Your task to perform on an android device: Search for the best-rated coffee table on Crate & Barrel Image 0: 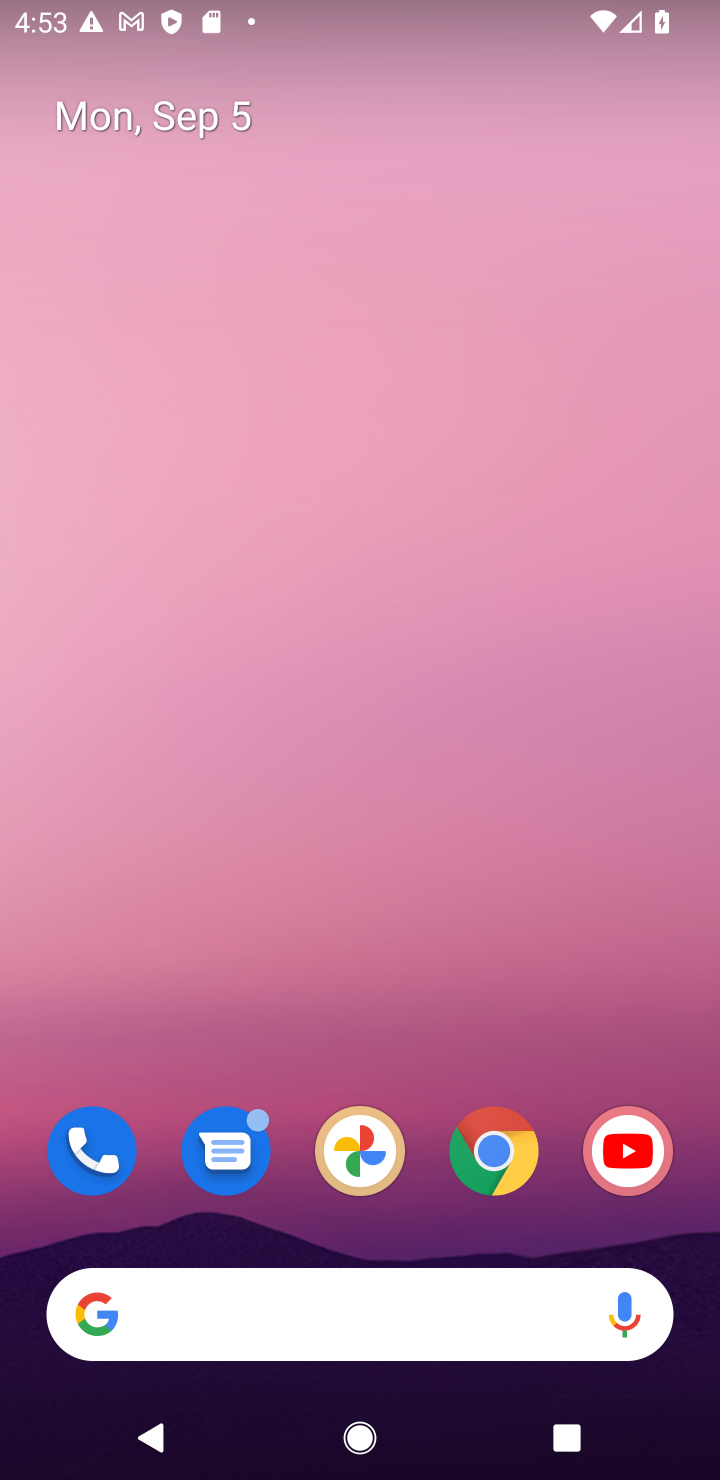
Step 0: drag from (396, 1277) to (460, 278)
Your task to perform on an android device: Search for the best-rated coffee table on Crate & Barrel Image 1: 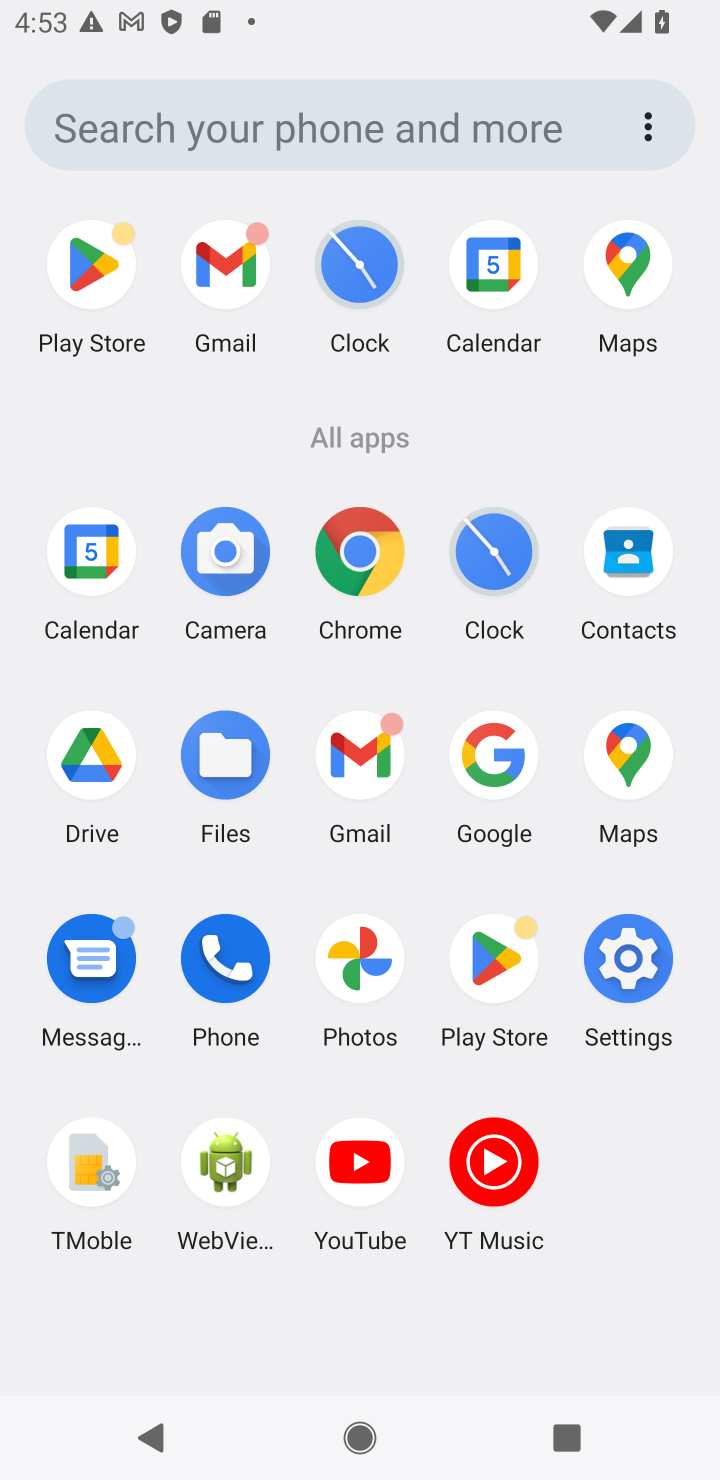
Step 1: click (352, 579)
Your task to perform on an android device: Search for the best-rated coffee table on Crate & Barrel Image 2: 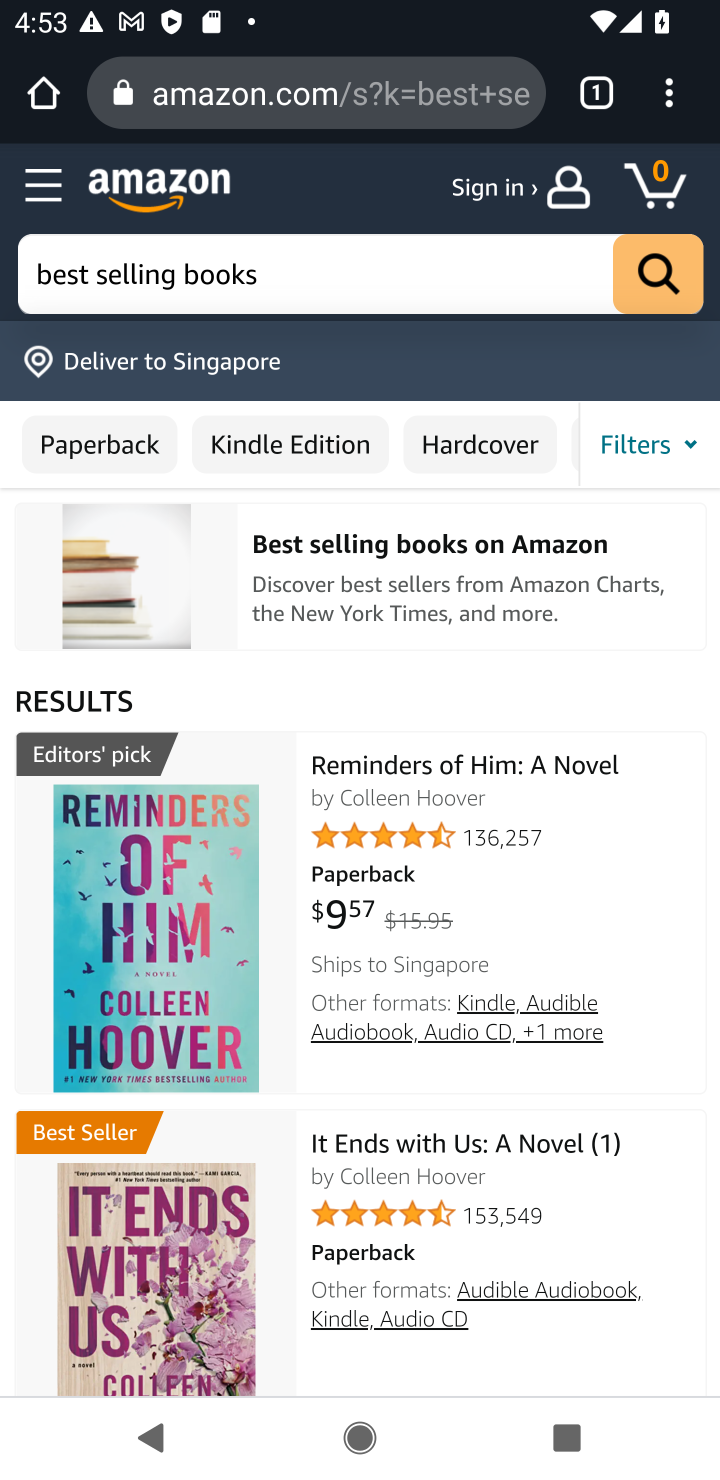
Step 2: click (475, 109)
Your task to perform on an android device: Search for the best-rated coffee table on Crate & Barrel Image 3: 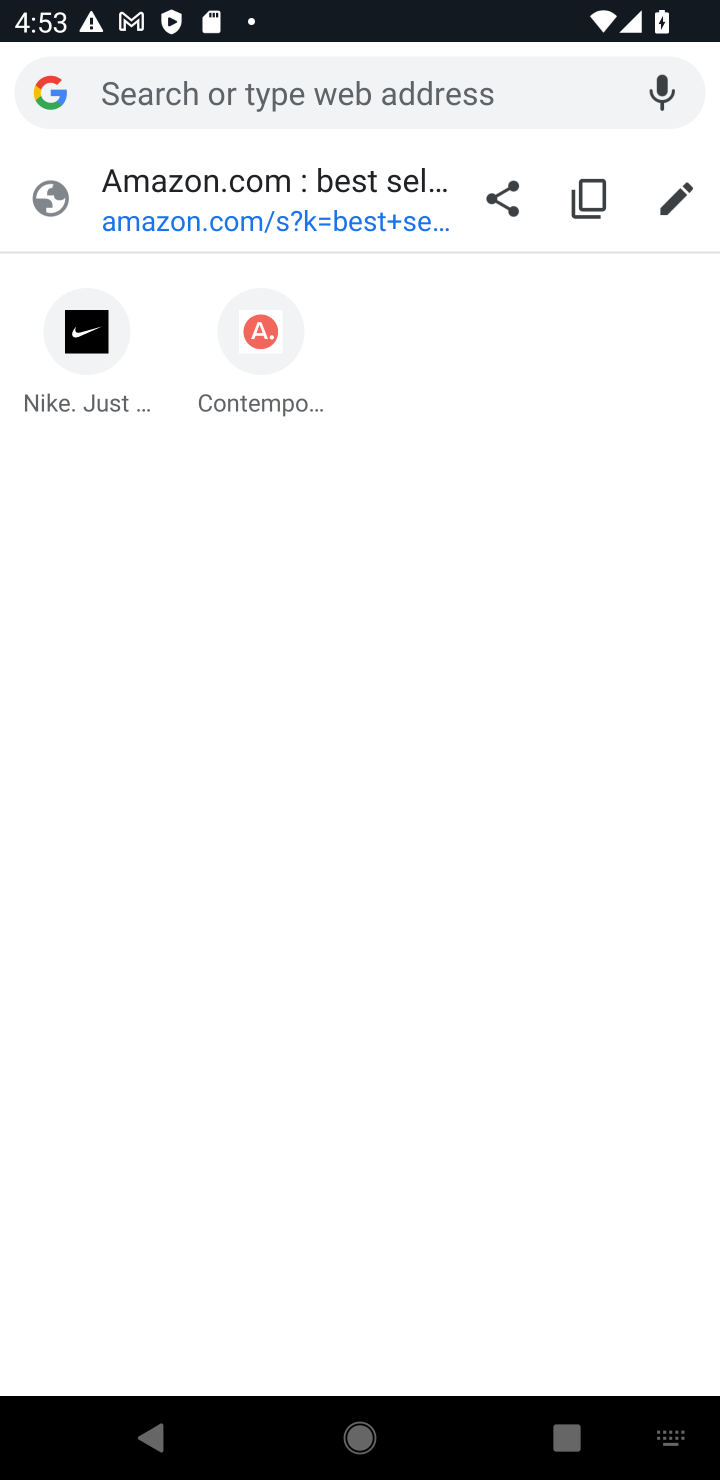
Step 3: type "crate and barrel"
Your task to perform on an android device: Search for the best-rated coffee table on Crate & Barrel Image 4: 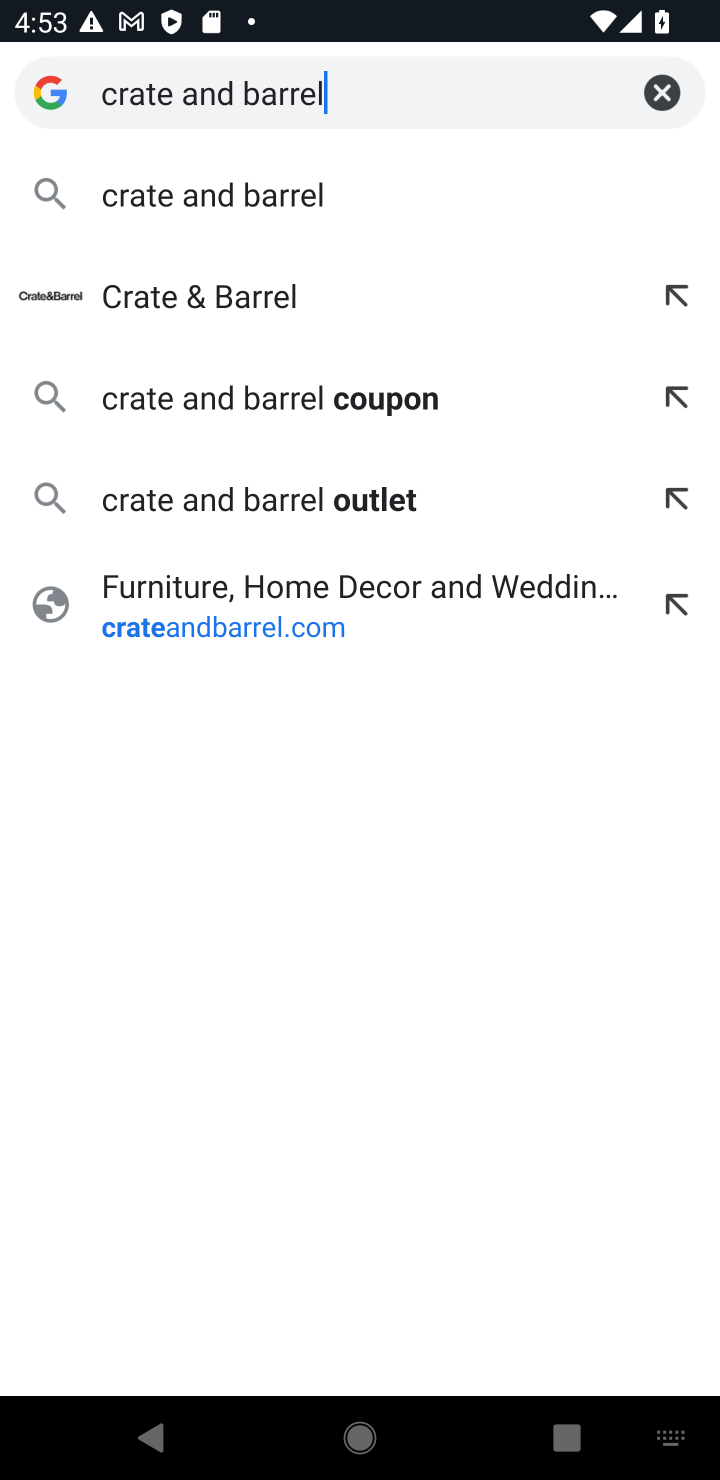
Step 4: click (185, 307)
Your task to perform on an android device: Search for the best-rated coffee table on Crate & Barrel Image 5: 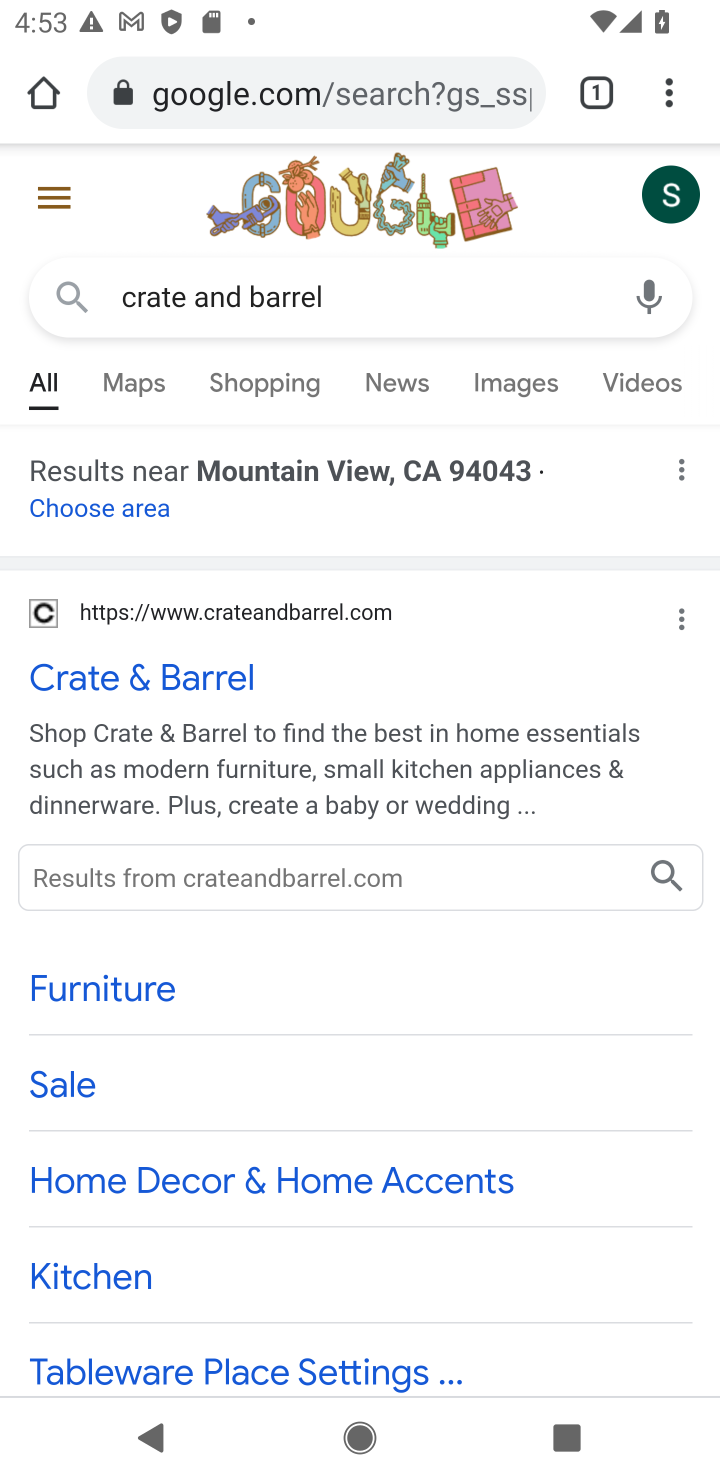
Step 5: click (211, 665)
Your task to perform on an android device: Search for the best-rated coffee table on Crate & Barrel Image 6: 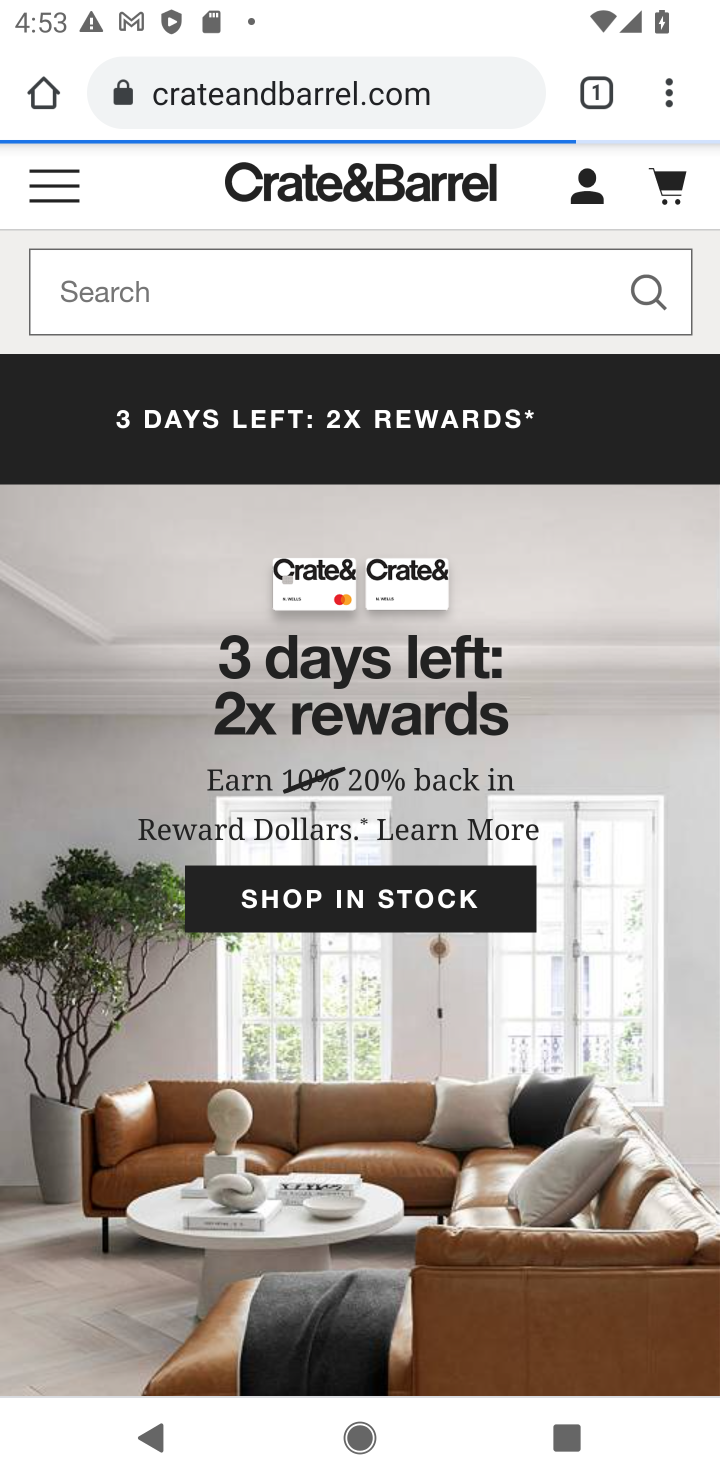
Step 6: click (387, 306)
Your task to perform on an android device: Search for the best-rated coffee table on Crate & Barrel Image 7: 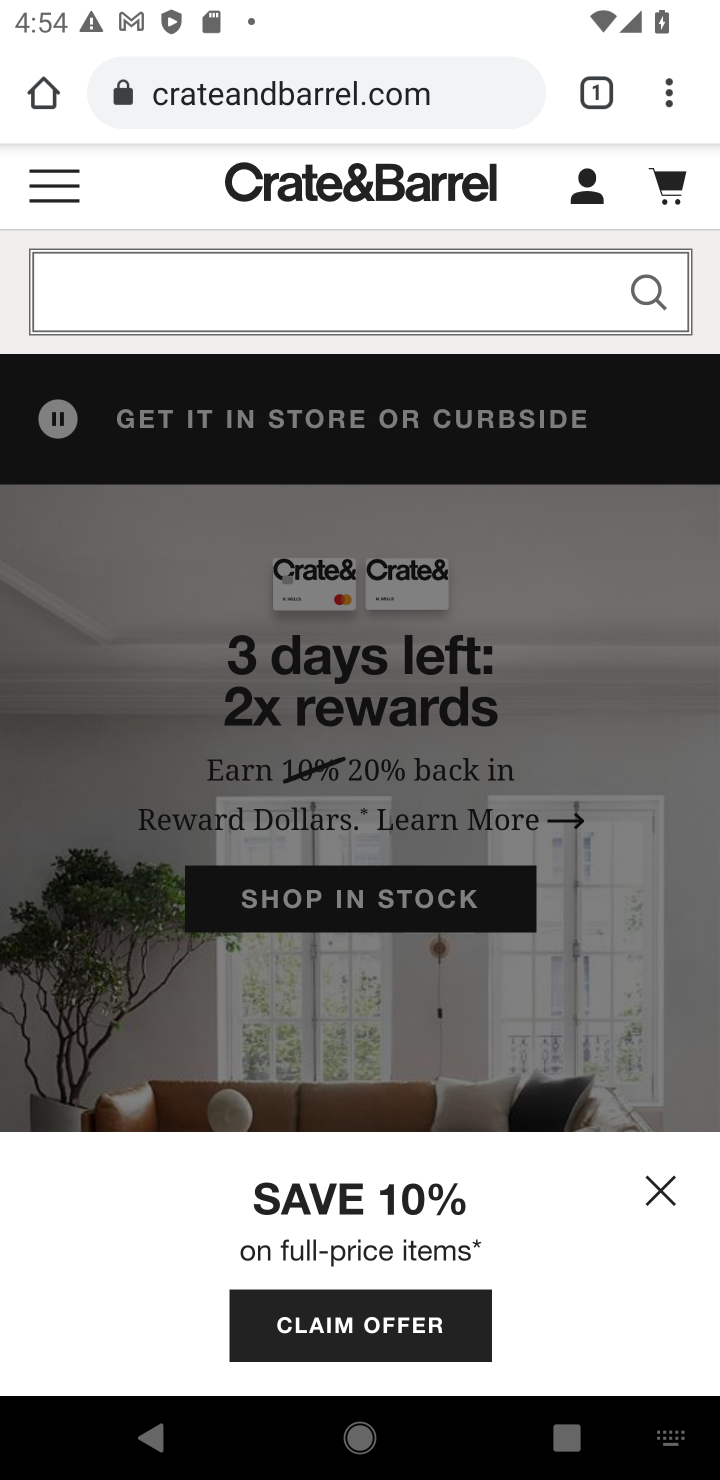
Step 7: type "best rated coffee table"
Your task to perform on an android device: Search for the best-rated coffee table on Crate & Barrel Image 8: 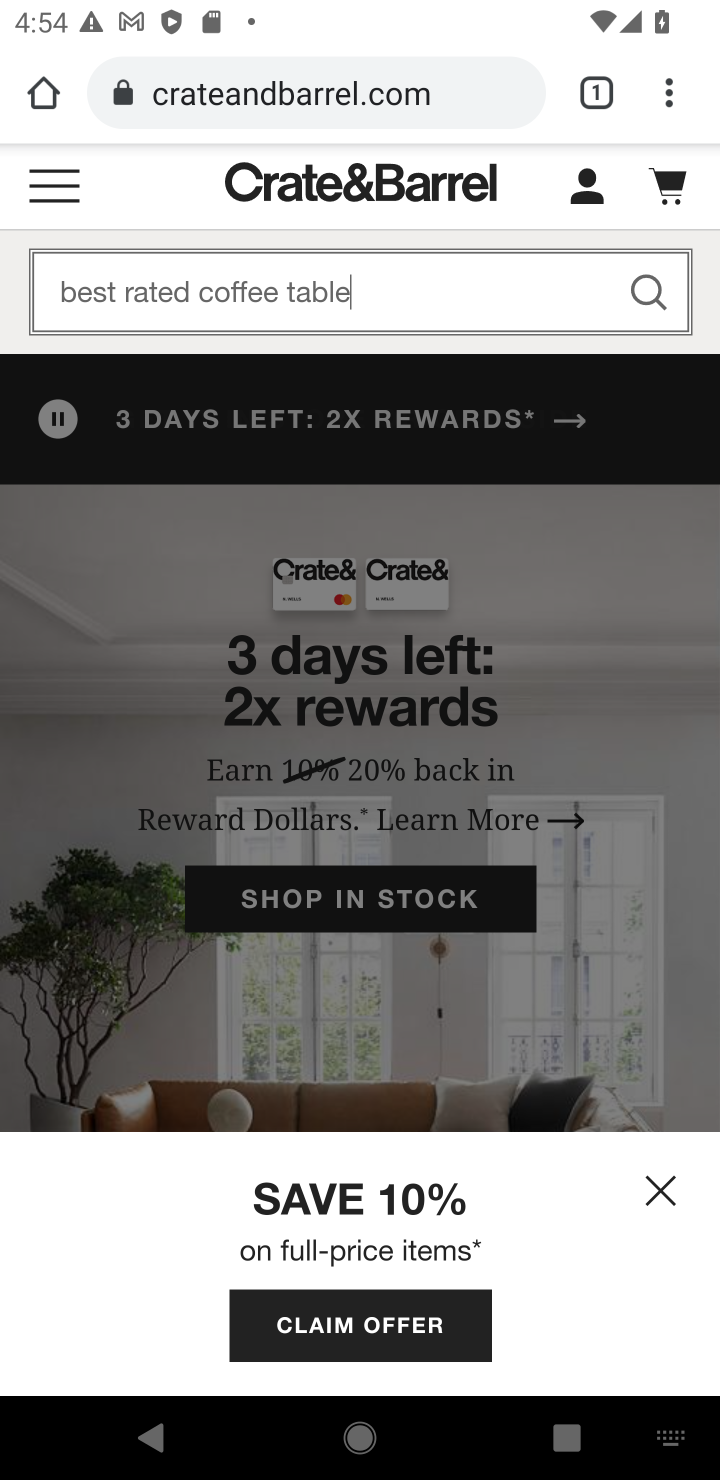
Step 8: click (657, 296)
Your task to perform on an android device: Search for the best-rated coffee table on Crate & Barrel Image 9: 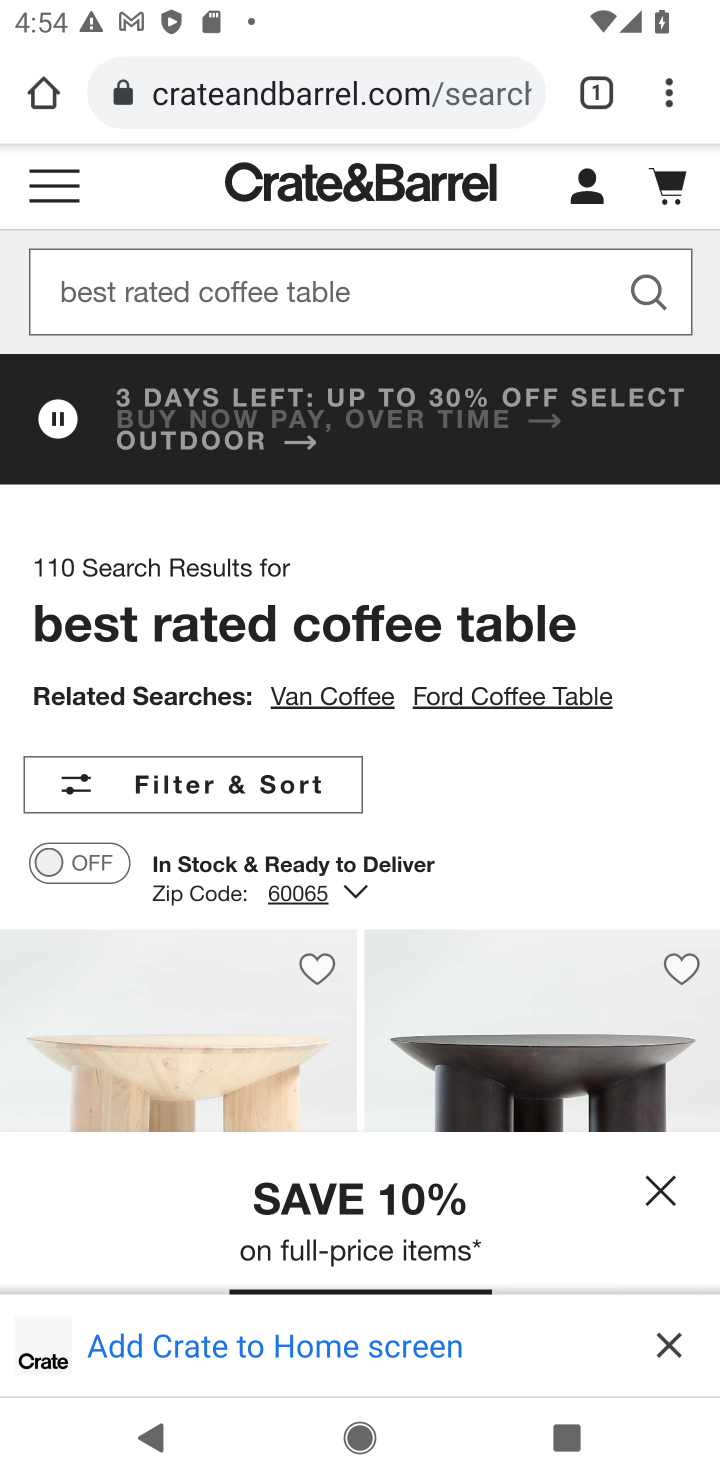
Step 9: task complete